Your task to perform on an android device: What's the weather going to be this weekend? Image 0: 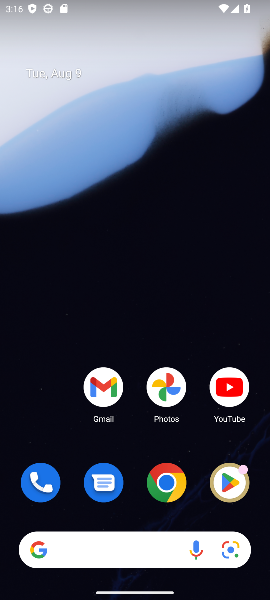
Step 0: drag from (135, 428) to (148, 68)
Your task to perform on an android device: What's the weather going to be this weekend? Image 1: 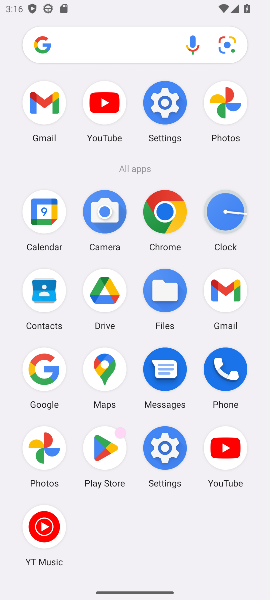
Step 1: click (58, 375)
Your task to perform on an android device: What's the weather going to be this weekend? Image 2: 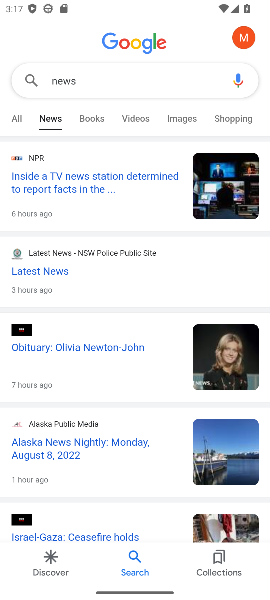
Step 2: click (111, 78)
Your task to perform on an android device: What's the weather going to be this weekend? Image 3: 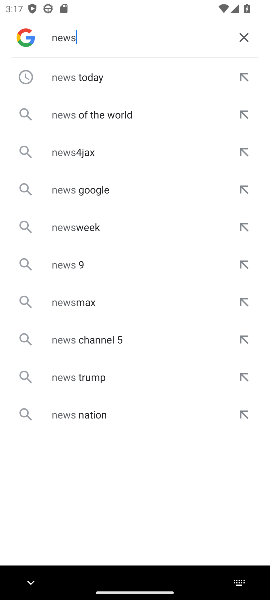
Step 3: click (243, 35)
Your task to perform on an android device: What's the weather going to be this weekend? Image 4: 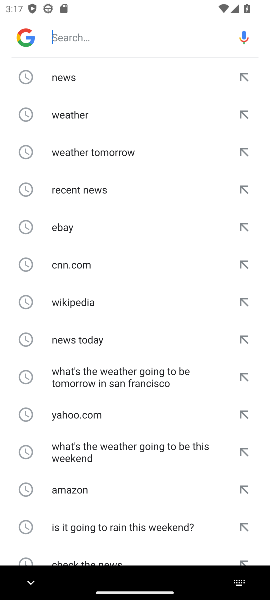
Step 4: click (78, 117)
Your task to perform on an android device: What's the weather going to be this weekend? Image 5: 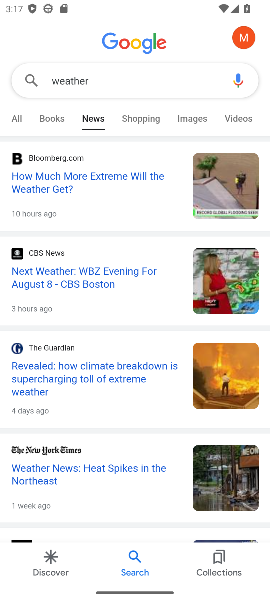
Step 5: click (22, 109)
Your task to perform on an android device: What's the weather going to be this weekend? Image 6: 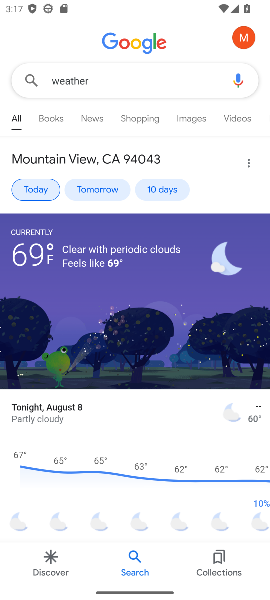
Step 6: click (152, 181)
Your task to perform on an android device: What's the weather going to be this weekend? Image 7: 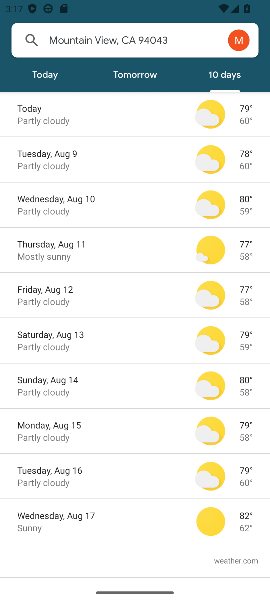
Step 7: task complete